Your task to perform on an android device: Go to sound settings Image 0: 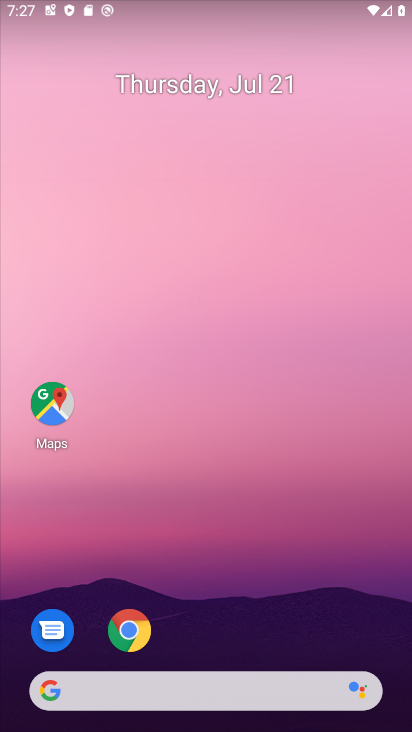
Step 0: drag from (80, 651) to (95, 1)
Your task to perform on an android device: Go to sound settings Image 1: 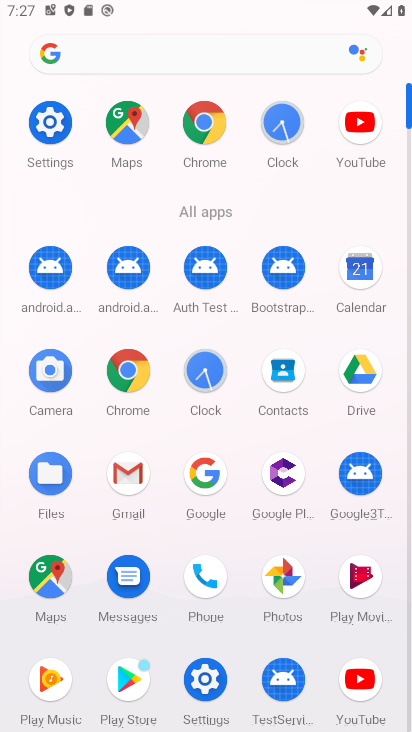
Step 1: click (54, 118)
Your task to perform on an android device: Go to sound settings Image 2: 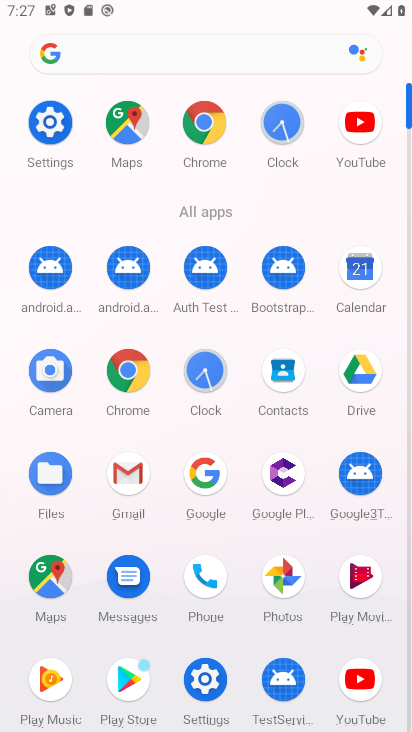
Step 2: click (54, 118)
Your task to perform on an android device: Go to sound settings Image 3: 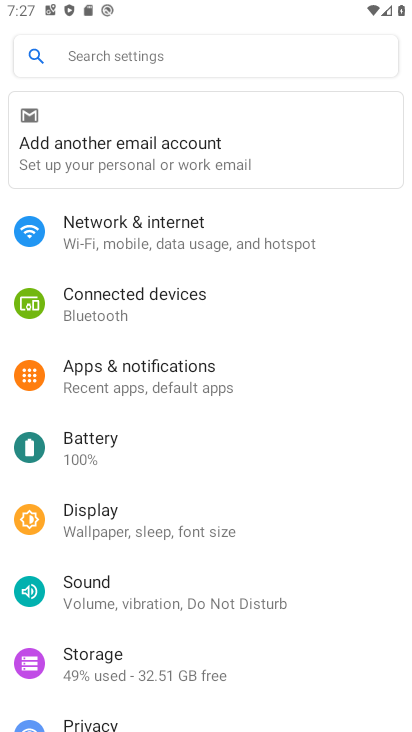
Step 3: click (116, 587)
Your task to perform on an android device: Go to sound settings Image 4: 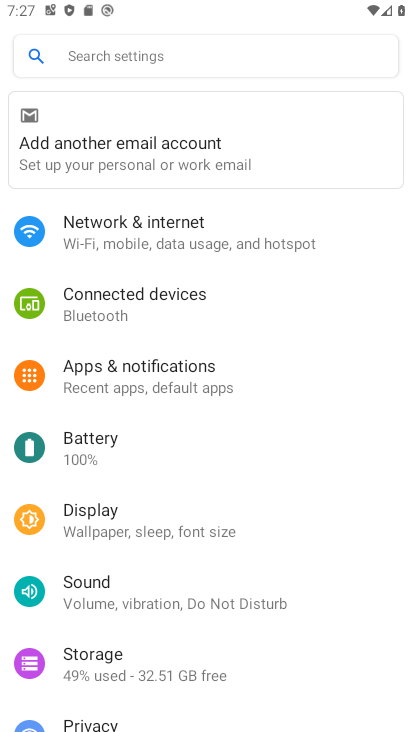
Step 4: click (116, 587)
Your task to perform on an android device: Go to sound settings Image 5: 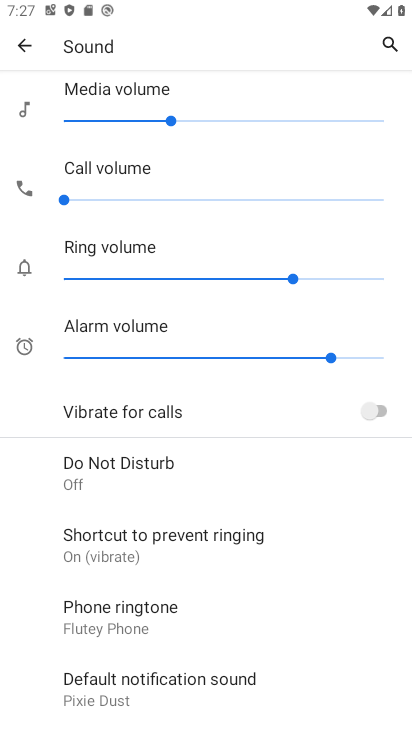
Step 5: task complete